Your task to perform on an android device: What's on my calendar tomorrow? Image 0: 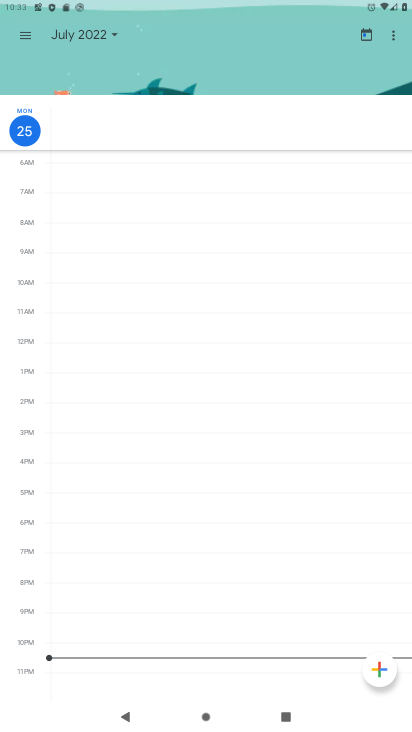
Step 0: press home button
Your task to perform on an android device: What's on my calendar tomorrow? Image 1: 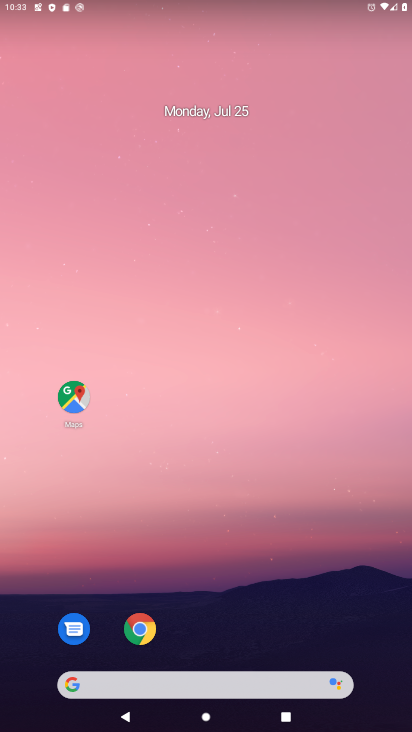
Step 1: drag from (260, 635) to (258, 179)
Your task to perform on an android device: What's on my calendar tomorrow? Image 2: 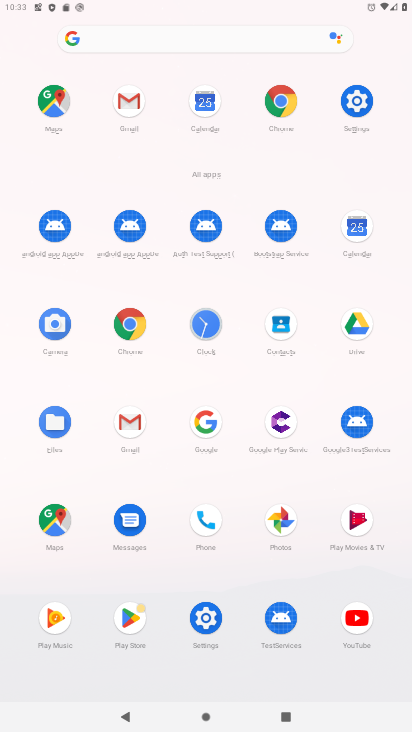
Step 2: click (364, 227)
Your task to perform on an android device: What's on my calendar tomorrow? Image 3: 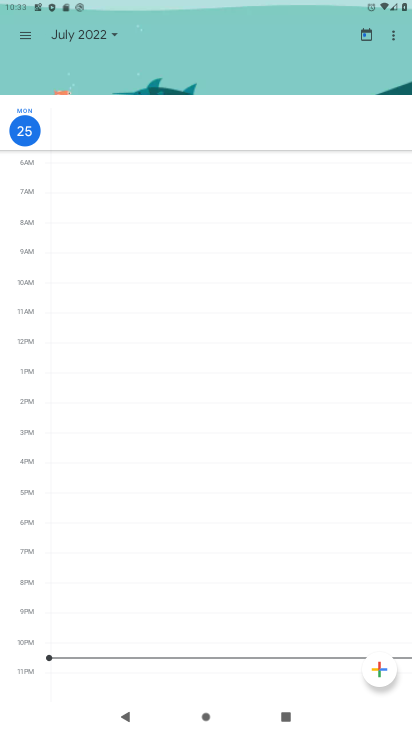
Step 3: click (24, 32)
Your task to perform on an android device: What's on my calendar tomorrow? Image 4: 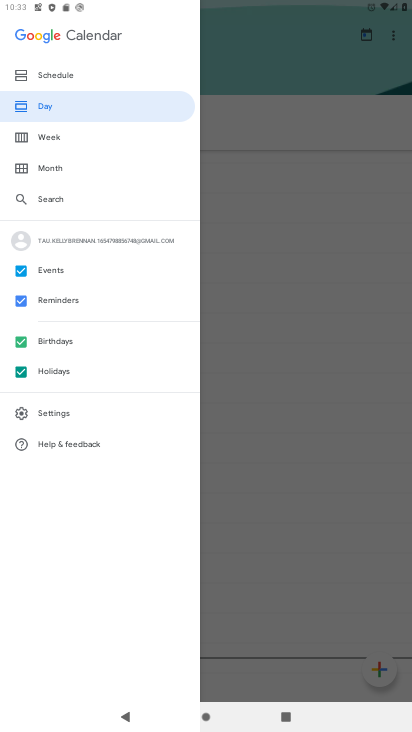
Step 4: click (42, 70)
Your task to perform on an android device: What's on my calendar tomorrow? Image 5: 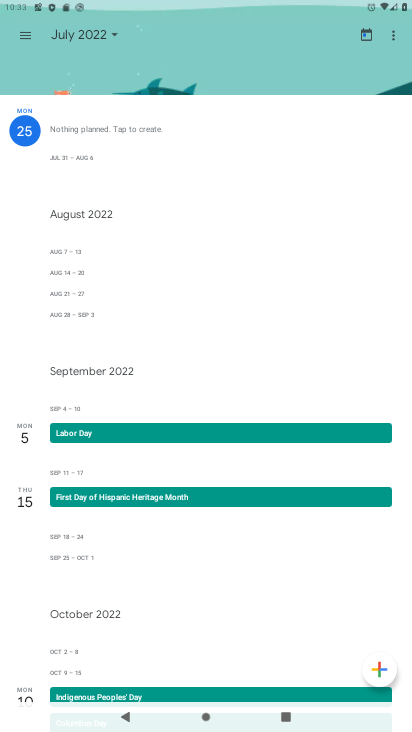
Step 5: click (95, 37)
Your task to perform on an android device: What's on my calendar tomorrow? Image 6: 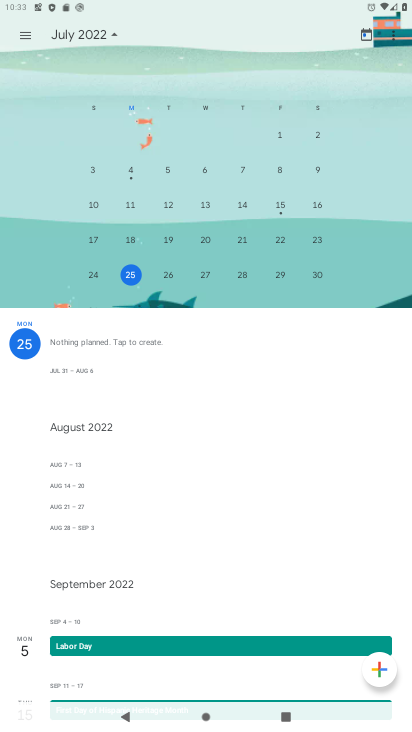
Step 6: click (174, 279)
Your task to perform on an android device: What's on my calendar tomorrow? Image 7: 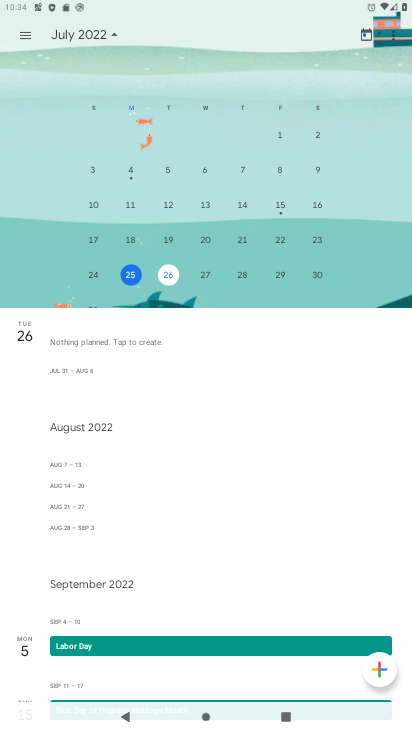
Step 7: task complete